Your task to perform on an android device: change alarm snooze length Image 0: 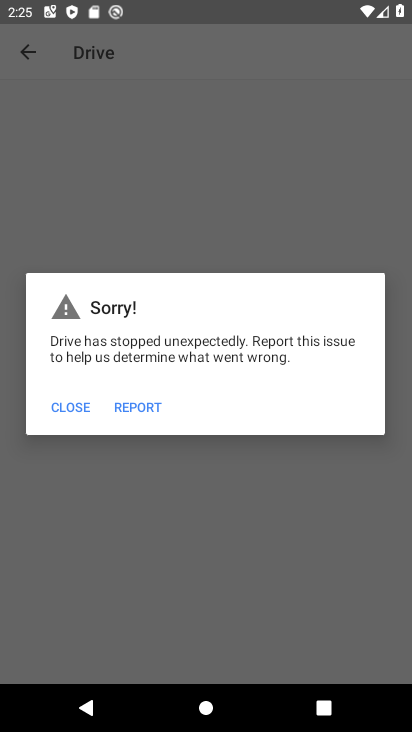
Step 0: press home button
Your task to perform on an android device: change alarm snooze length Image 1: 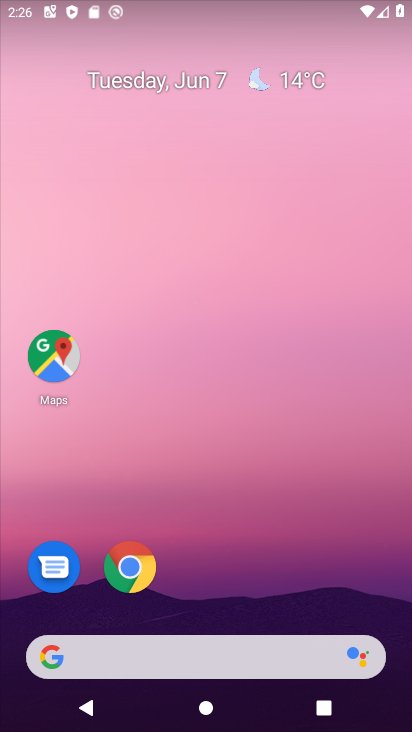
Step 1: drag from (209, 576) to (186, 229)
Your task to perform on an android device: change alarm snooze length Image 2: 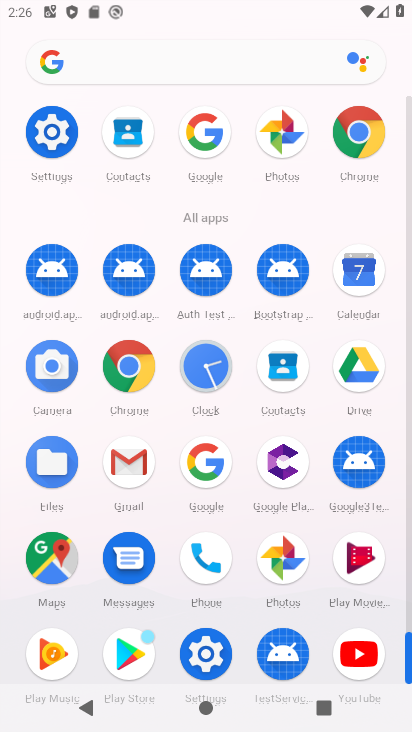
Step 2: click (201, 365)
Your task to perform on an android device: change alarm snooze length Image 3: 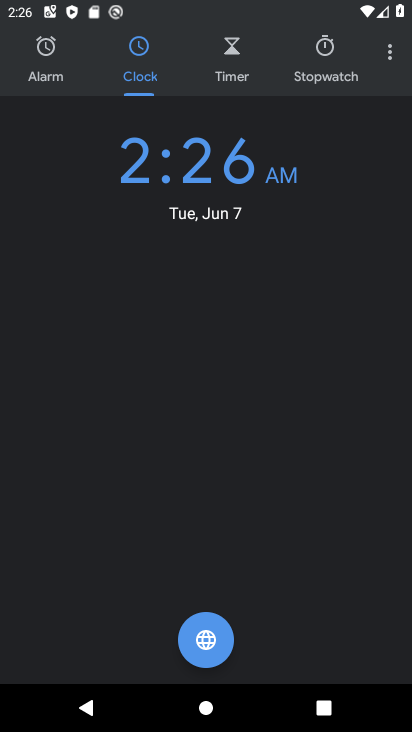
Step 3: click (384, 51)
Your task to perform on an android device: change alarm snooze length Image 4: 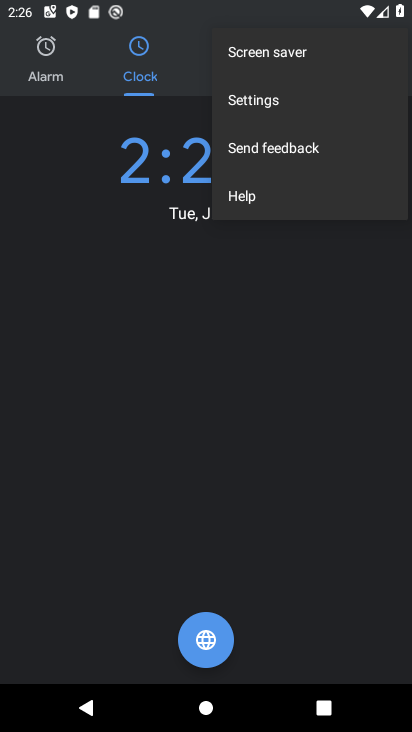
Step 4: click (299, 91)
Your task to perform on an android device: change alarm snooze length Image 5: 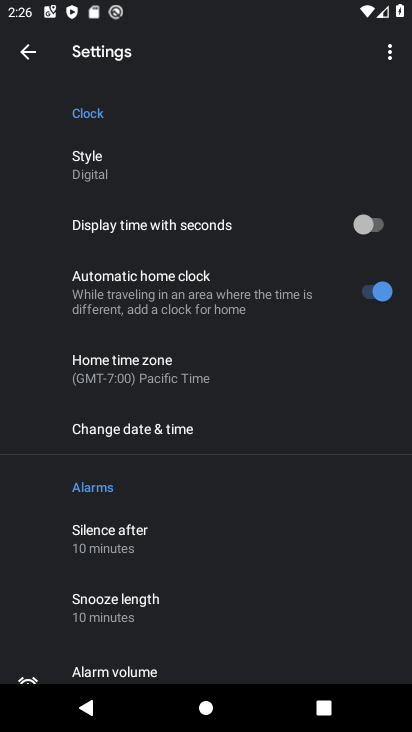
Step 5: drag from (206, 586) to (243, 405)
Your task to perform on an android device: change alarm snooze length Image 6: 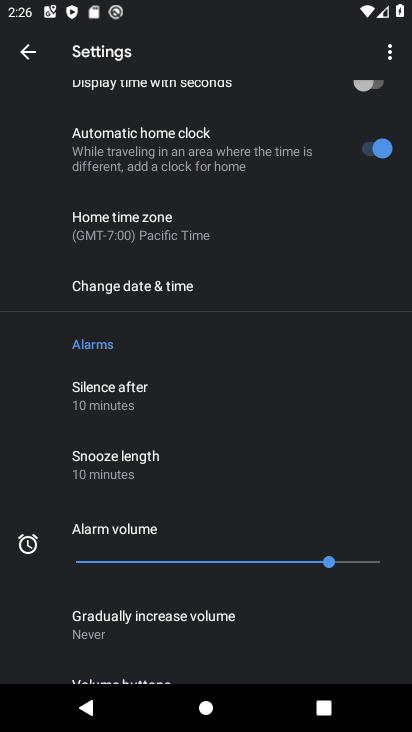
Step 6: click (185, 456)
Your task to perform on an android device: change alarm snooze length Image 7: 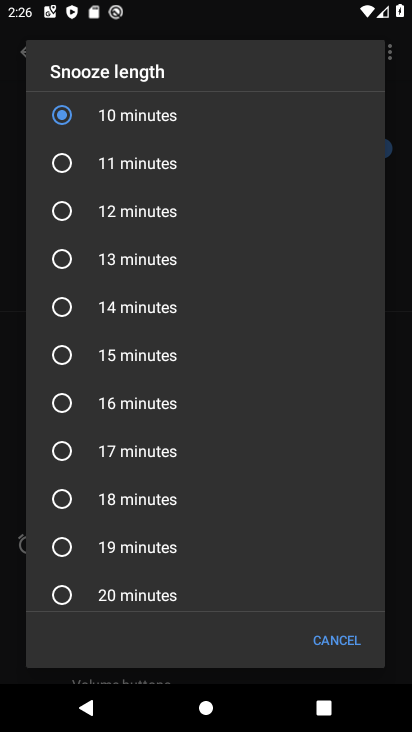
Step 7: drag from (172, 514) to (188, 376)
Your task to perform on an android device: change alarm snooze length Image 8: 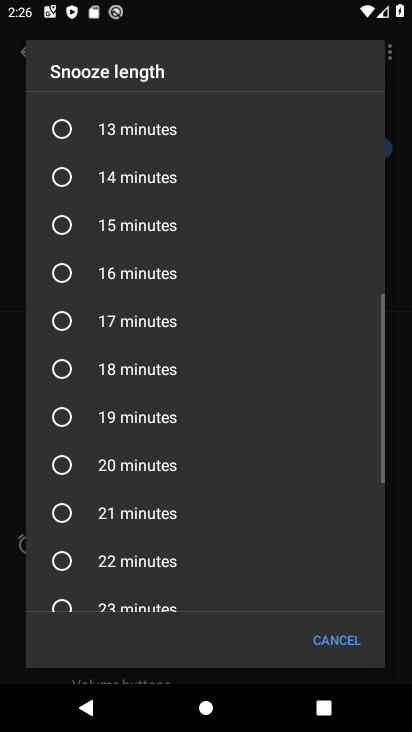
Step 8: click (167, 371)
Your task to perform on an android device: change alarm snooze length Image 9: 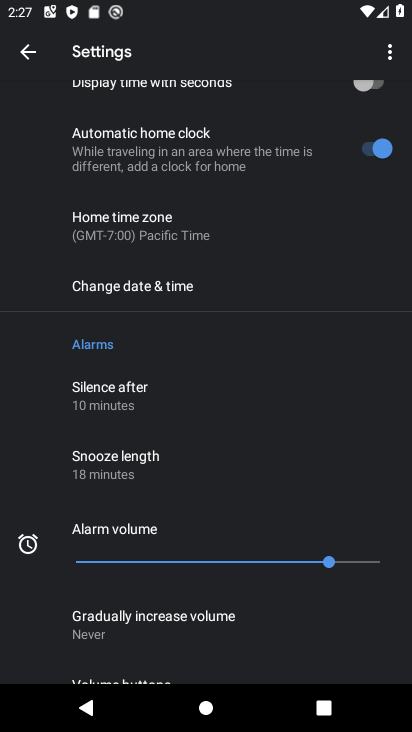
Step 9: task complete